Your task to perform on an android device: uninstall "Speedtest by Ookla" Image 0: 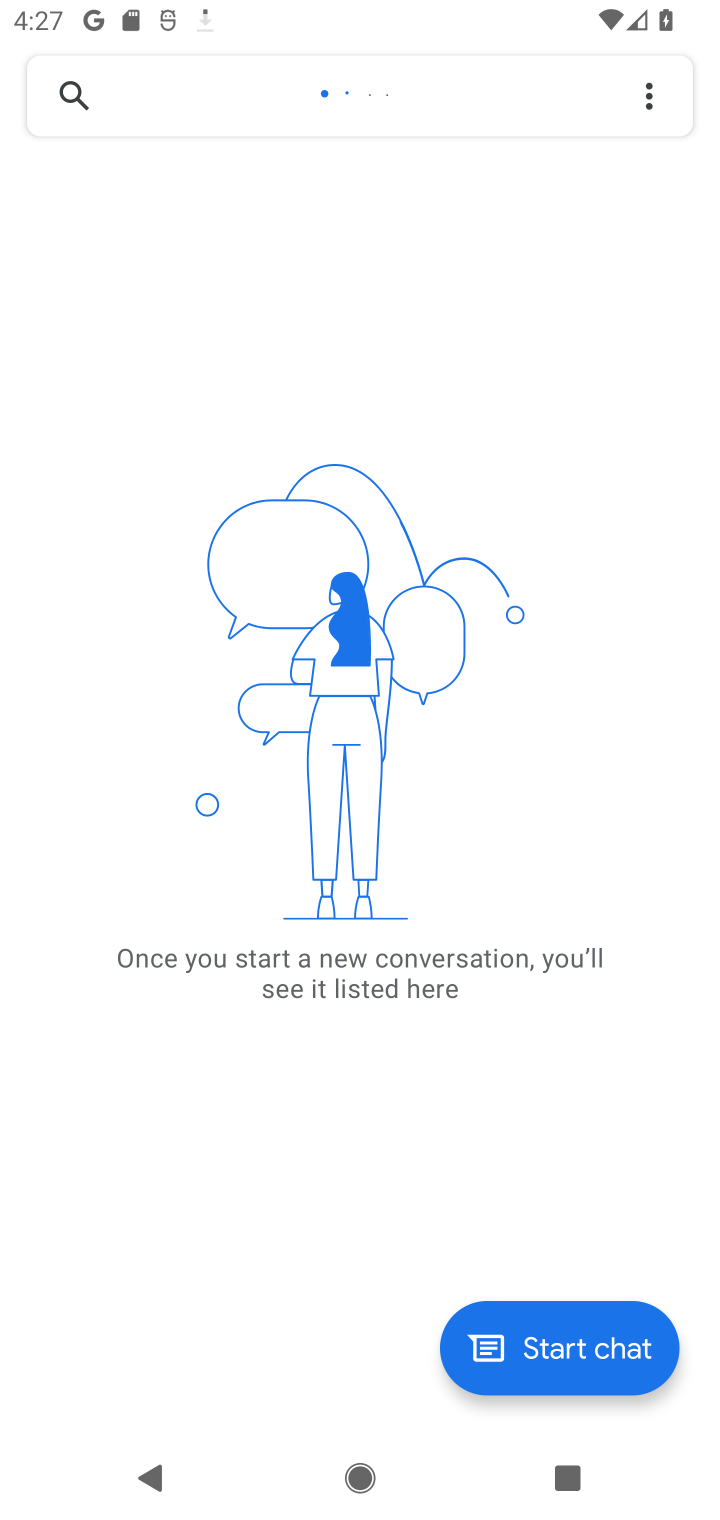
Step 0: press home button
Your task to perform on an android device: uninstall "Speedtest by Ookla" Image 1: 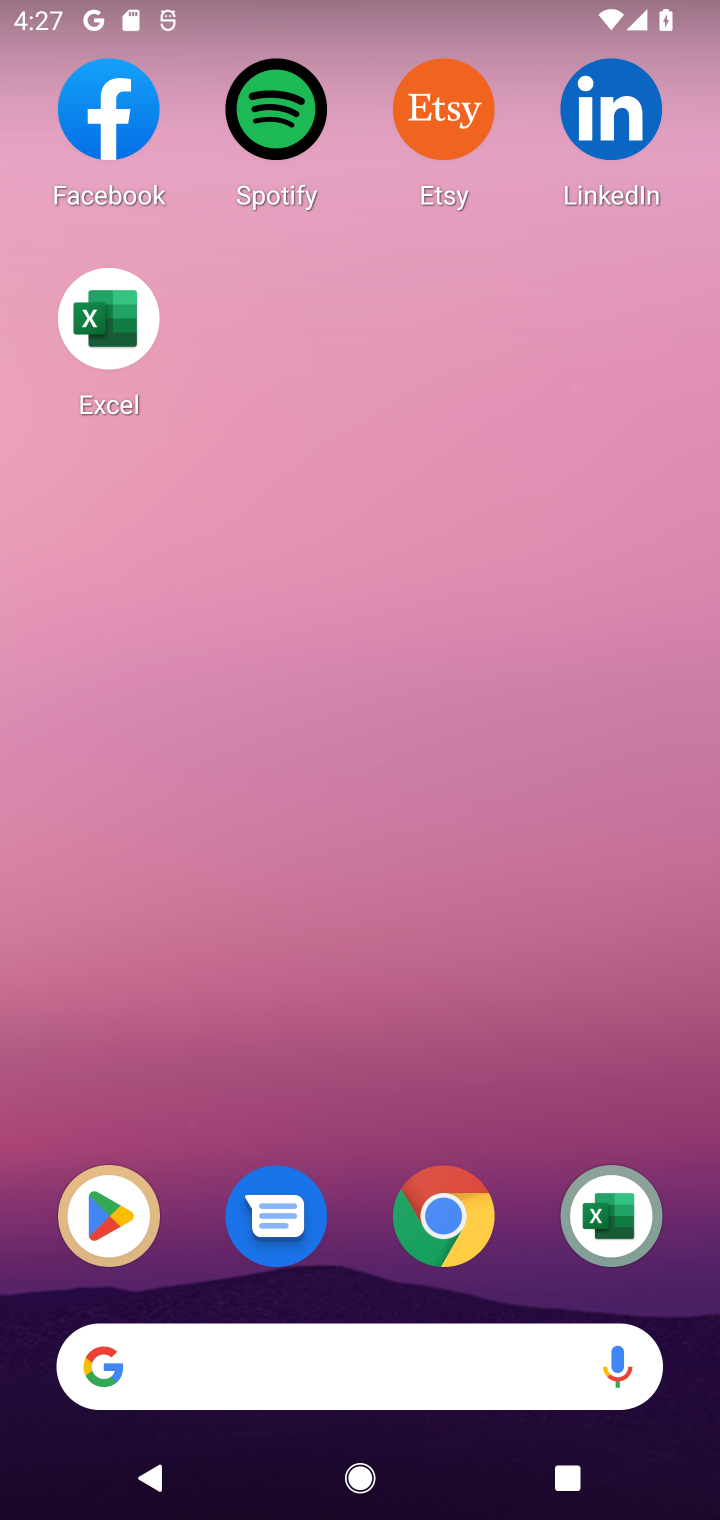
Step 1: click (82, 1231)
Your task to perform on an android device: uninstall "Speedtest by Ookla" Image 2: 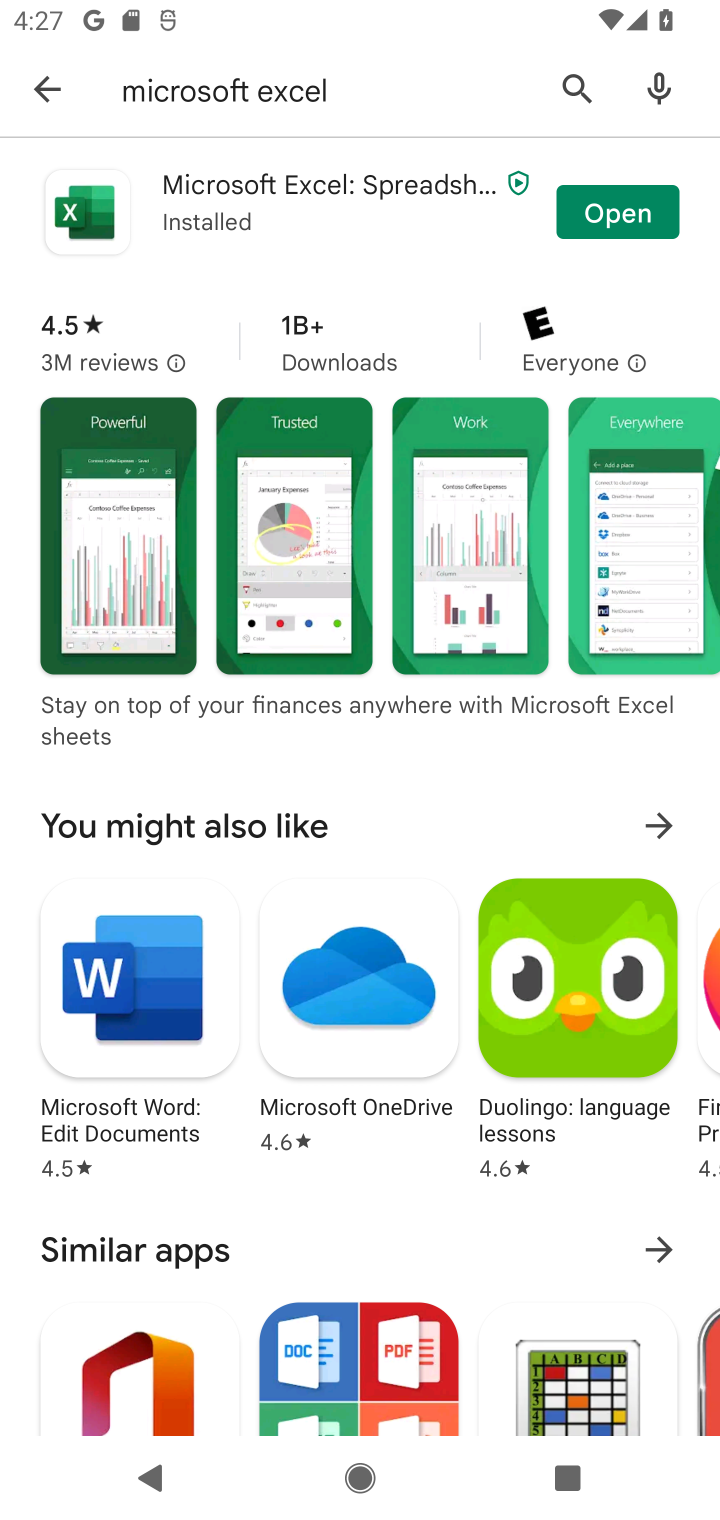
Step 2: click (542, 117)
Your task to perform on an android device: uninstall "Speedtest by Ookla" Image 3: 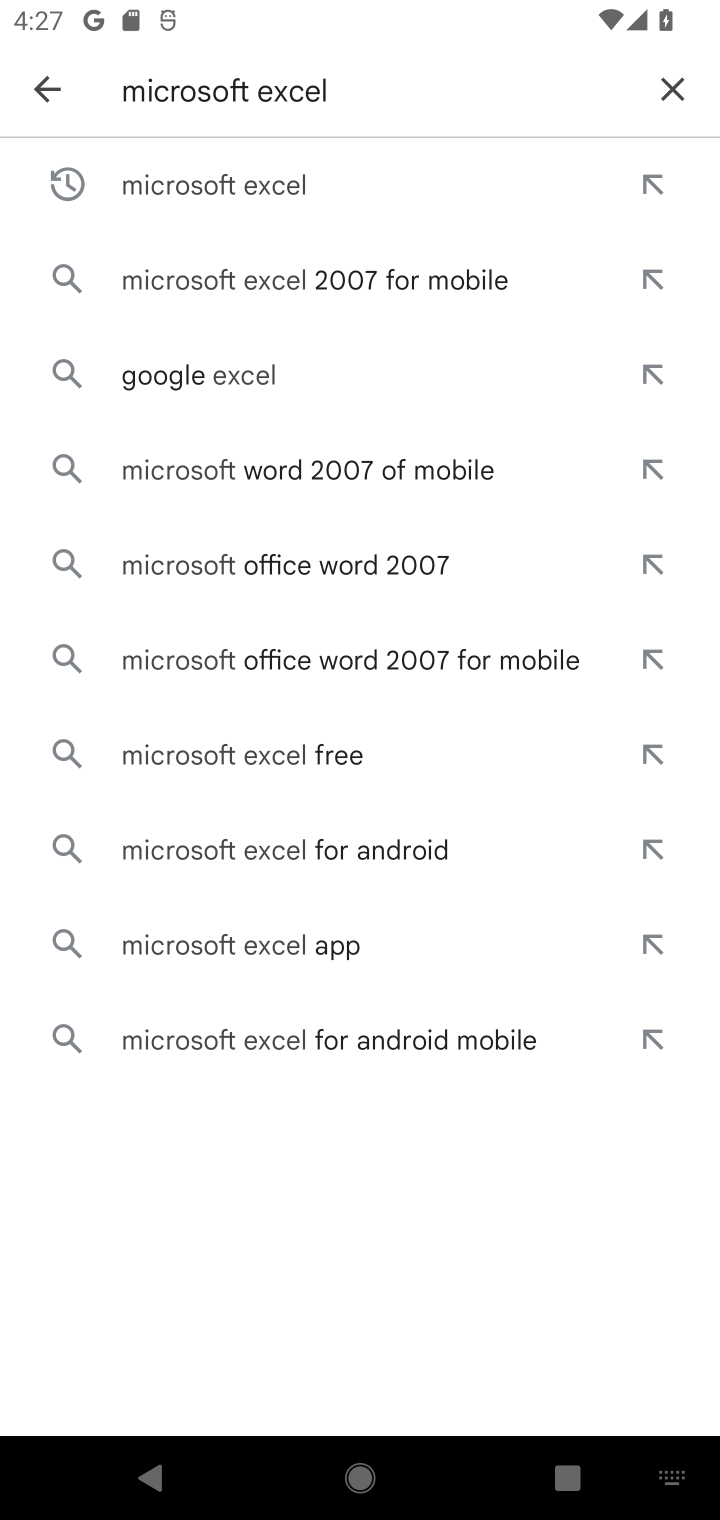
Step 3: click (667, 101)
Your task to perform on an android device: uninstall "Speedtest by Ookla" Image 4: 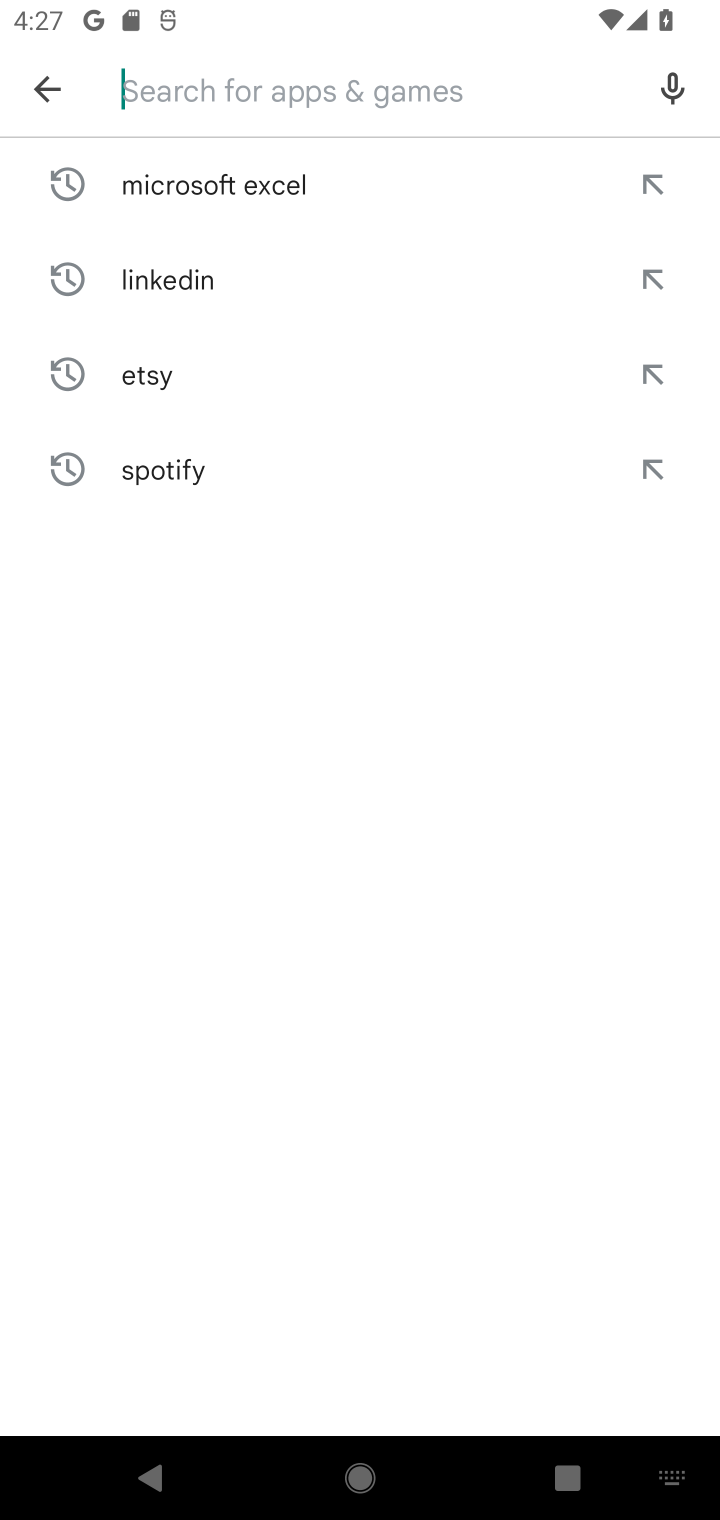
Step 4: type "speeed"
Your task to perform on an android device: uninstall "Speedtest by Ookla" Image 5: 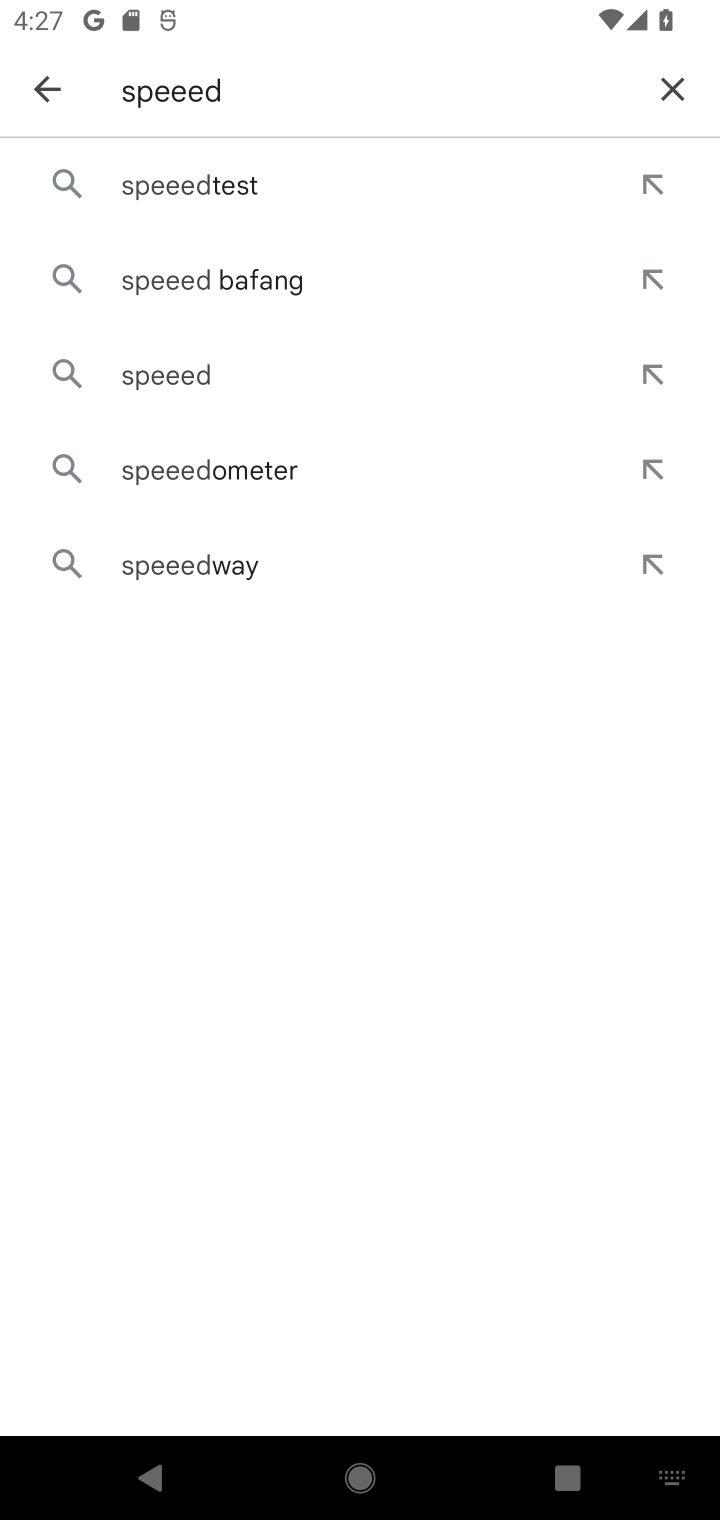
Step 5: click (253, 179)
Your task to perform on an android device: uninstall "Speedtest by Ookla" Image 6: 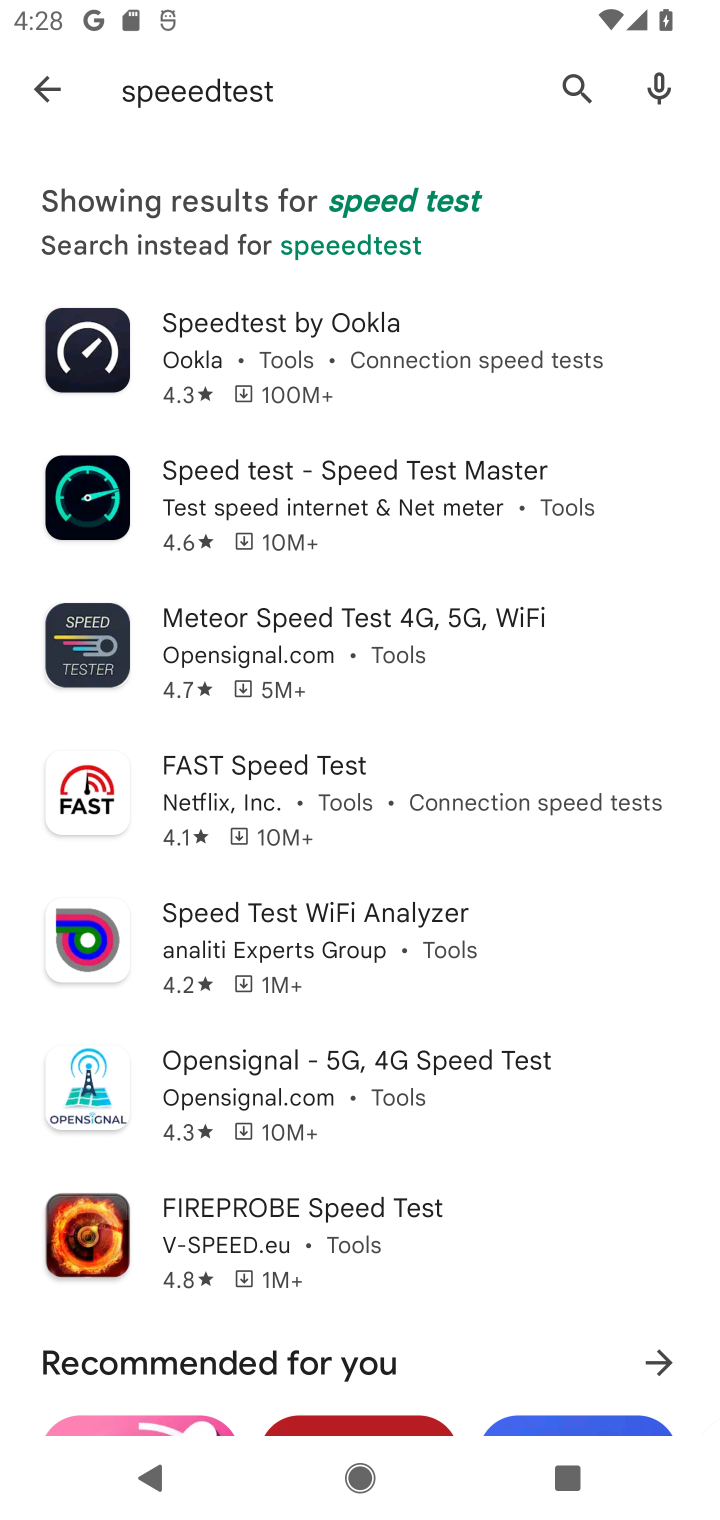
Step 6: click (383, 335)
Your task to perform on an android device: uninstall "Speedtest by Ookla" Image 7: 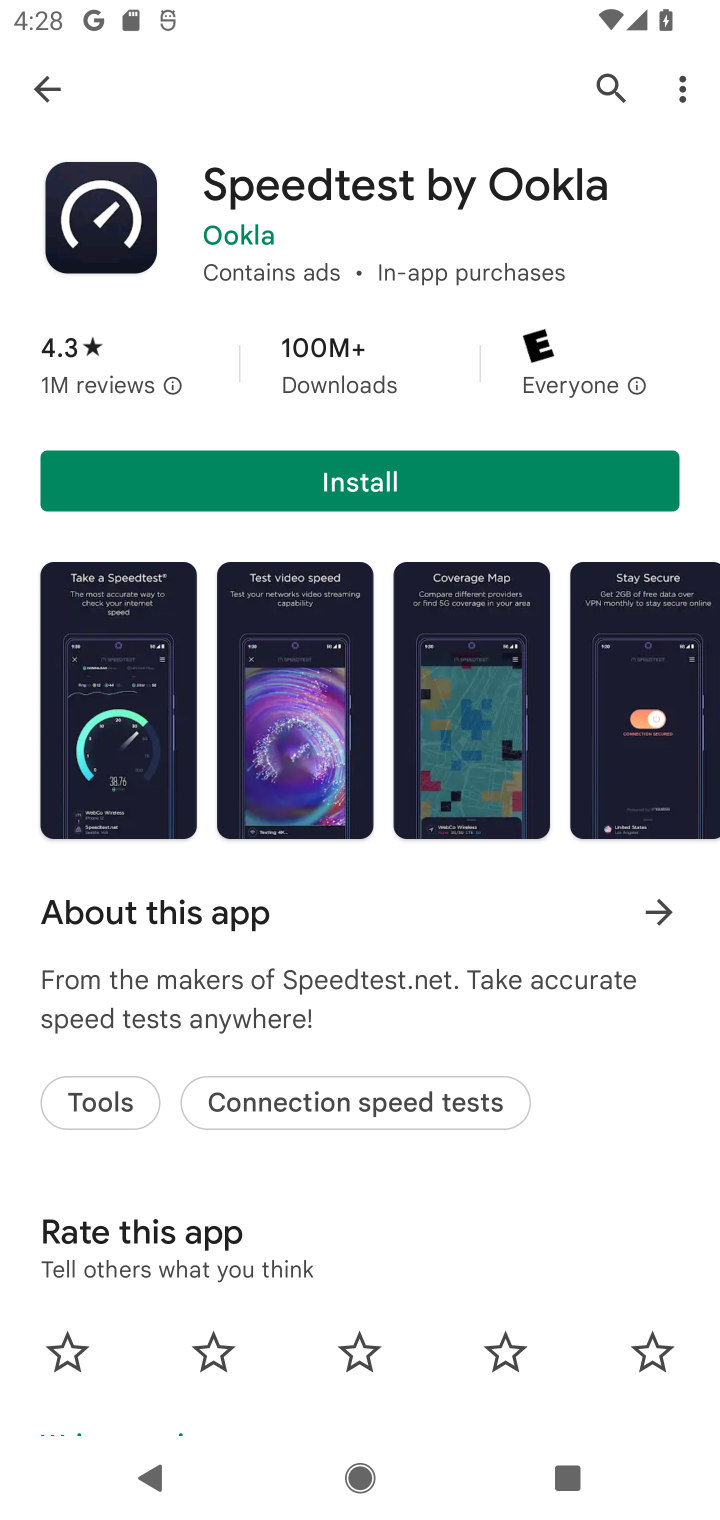
Step 7: click (370, 484)
Your task to perform on an android device: uninstall "Speedtest by Ookla" Image 8: 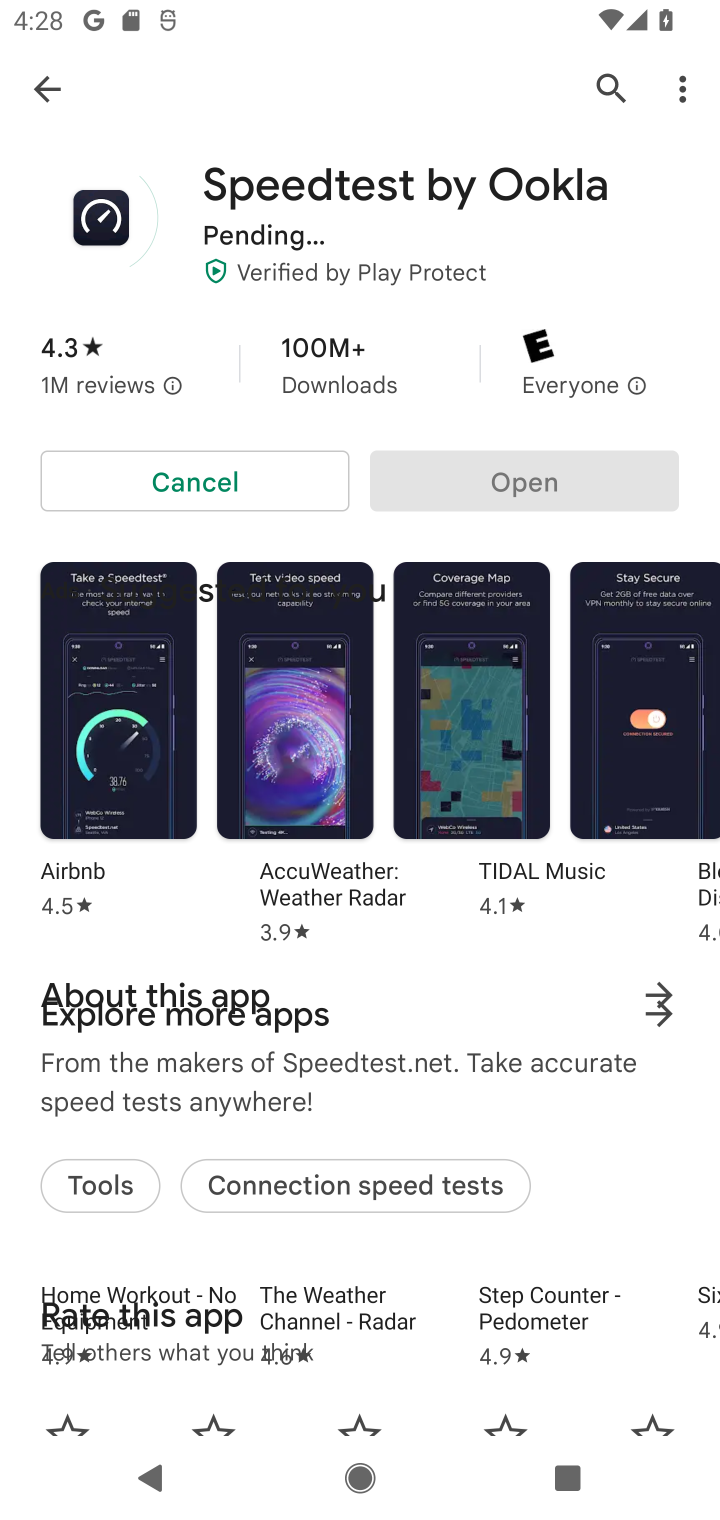
Step 8: task complete